Your task to perform on an android device: Open Amazon Image 0: 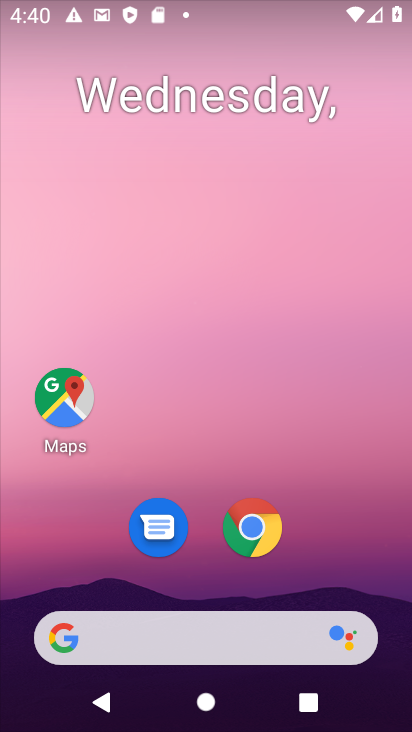
Step 0: drag from (174, 631) to (173, 191)
Your task to perform on an android device: Open Amazon Image 1: 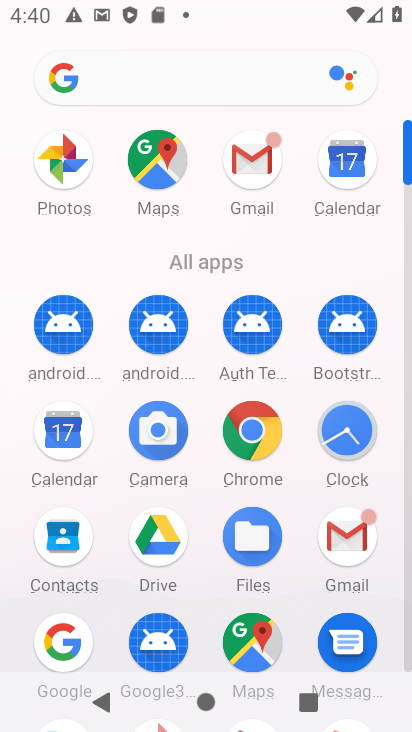
Step 1: click (236, 437)
Your task to perform on an android device: Open Amazon Image 2: 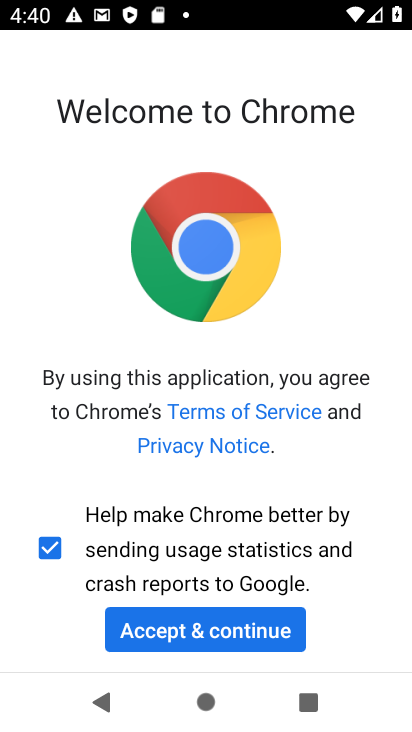
Step 2: click (213, 611)
Your task to perform on an android device: Open Amazon Image 3: 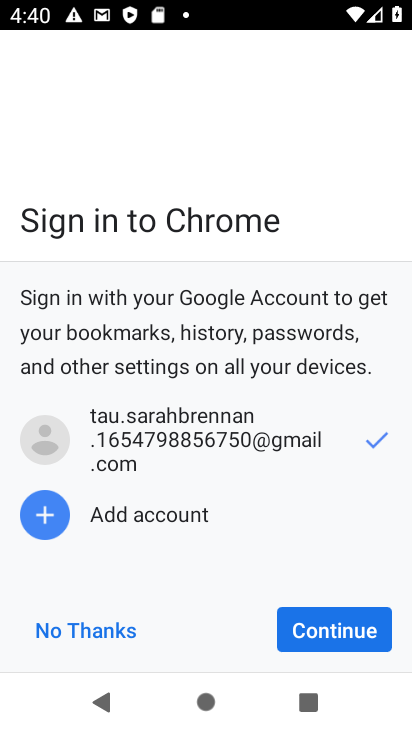
Step 3: click (317, 633)
Your task to perform on an android device: Open Amazon Image 4: 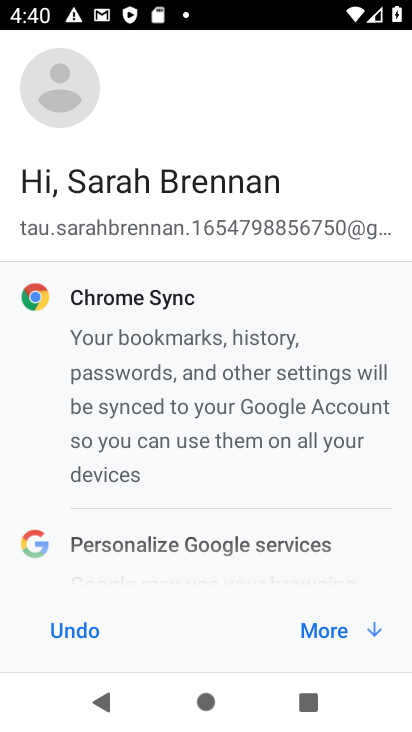
Step 4: click (317, 633)
Your task to perform on an android device: Open Amazon Image 5: 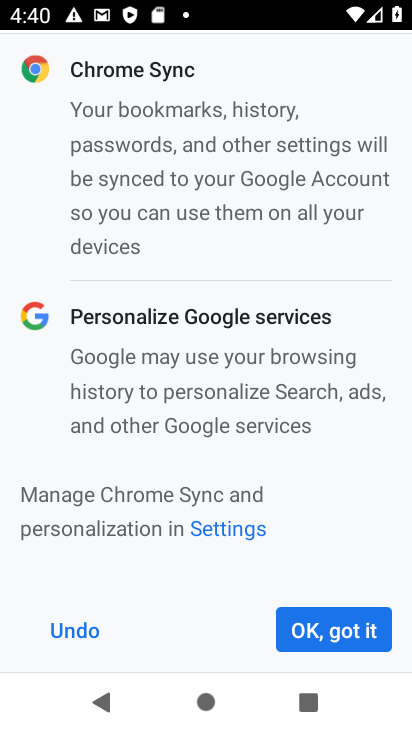
Step 5: click (317, 633)
Your task to perform on an android device: Open Amazon Image 6: 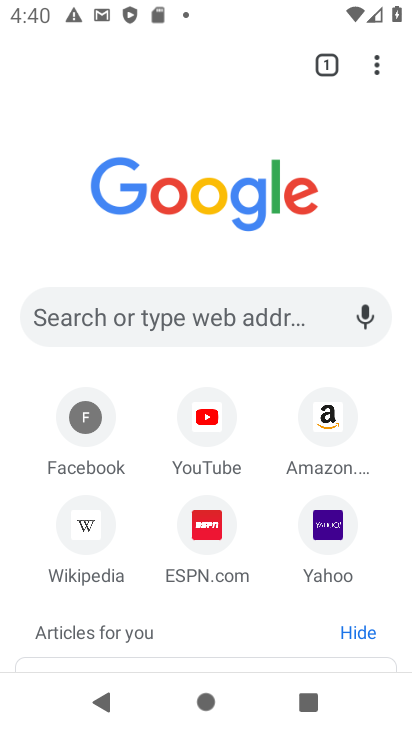
Step 6: click (317, 435)
Your task to perform on an android device: Open Amazon Image 7: 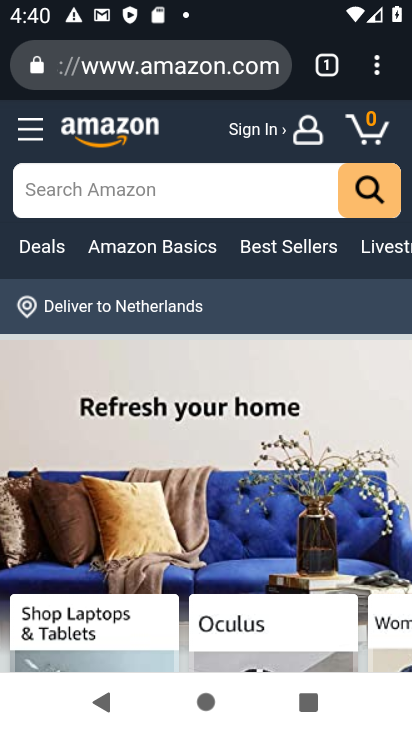
Step 7: task complete